Your task to perform on an android device: Open eBay Image 0: 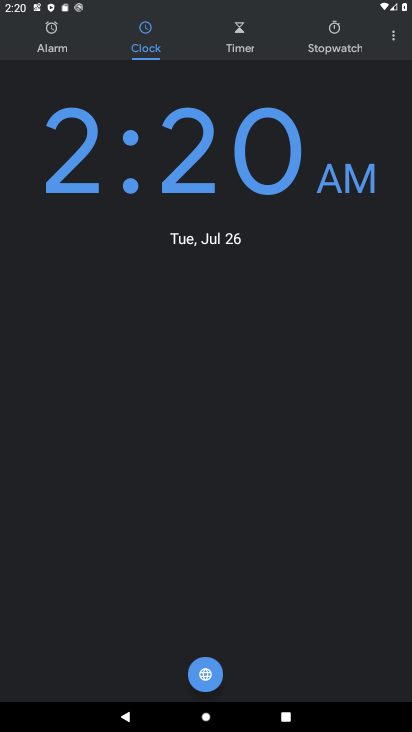
Step 0: press home button
Your task to perform on an android device: Open eBay Image 1: 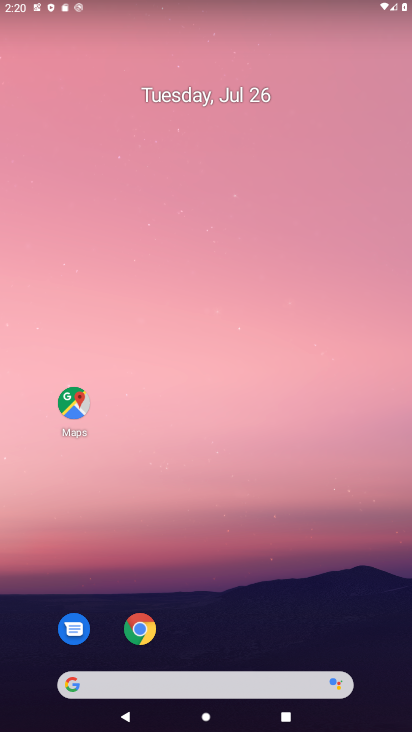
Step 1: click (130, 639)
Your task to perform on an android device: Open eBay Image 2: 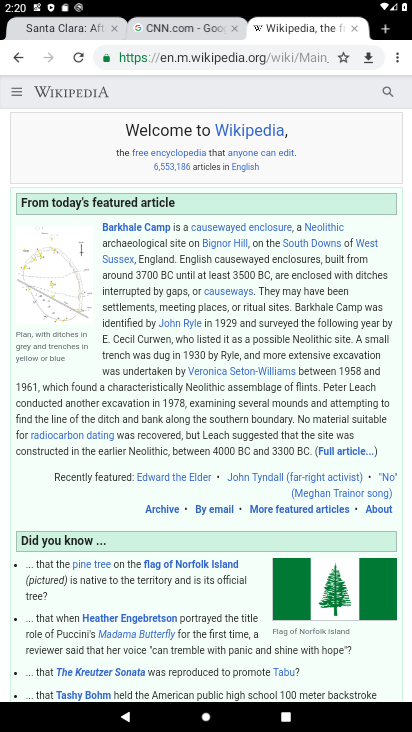
Step 2: click (378, 32)
Your task to perform on an android device: Open eBay Image 3: 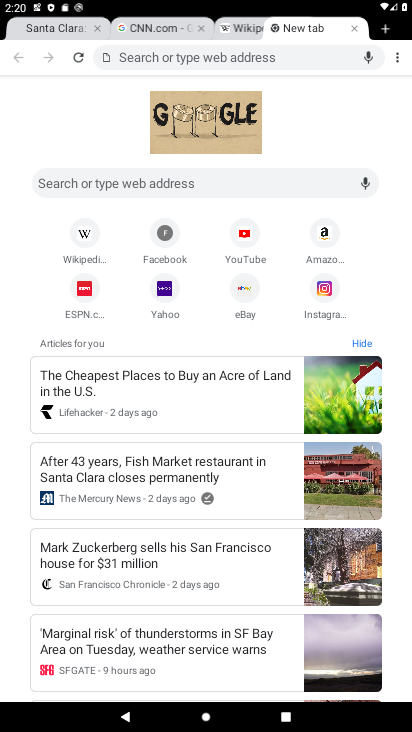
Step 3: click (232, 306)
Your task to perform on an android device: Open eBay Image 4: 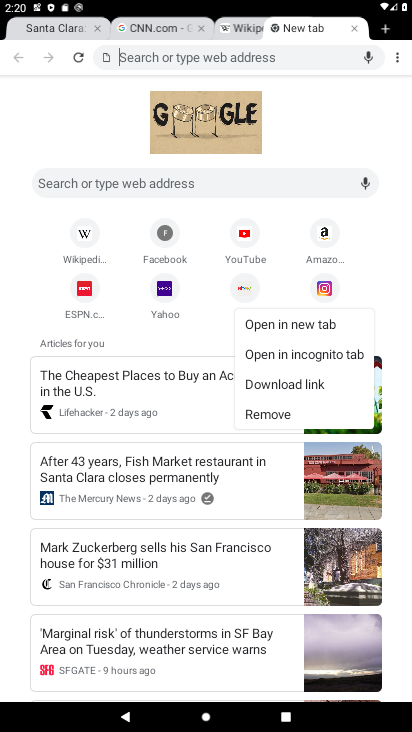
Step 4: click (236, 290)
Your task to perform on an android device: Open eBay Image 5: 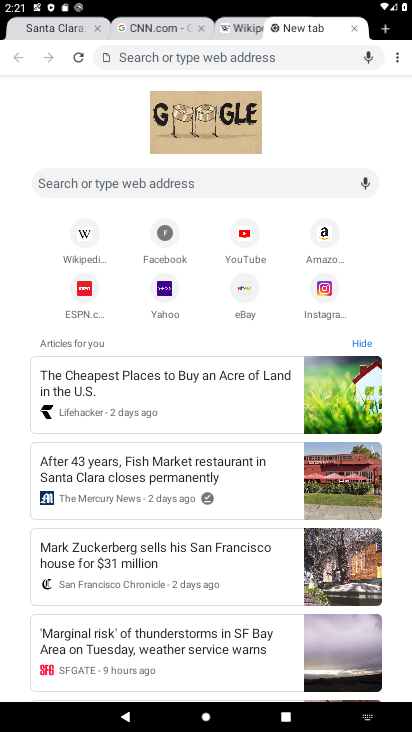
Step 5: task complete